Your task to perform on an android device: Open Youtube and go to the subscriptions tab Image 0: 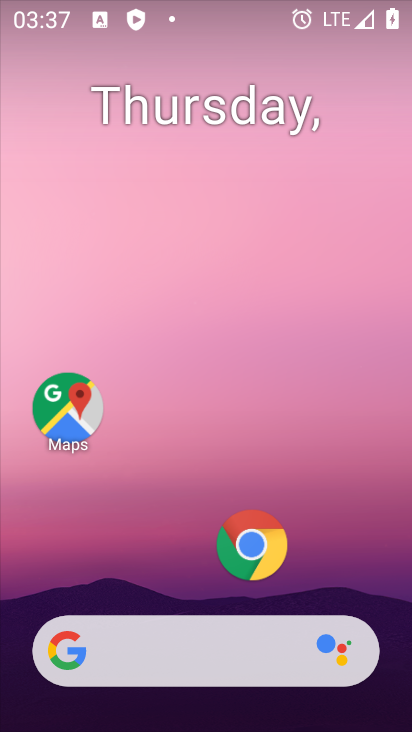
Step 0: drag from (205, 670) to (260, 10)
Your task to perform on an android device: Open Youtube and go to the subscriptions tab Image 1: 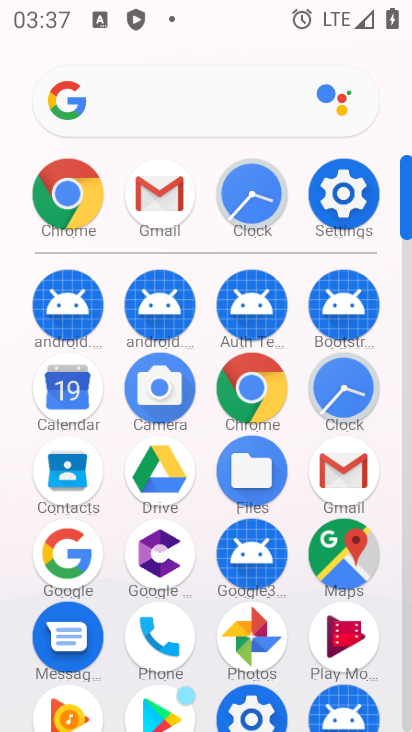
Step 1: drag from (290, 630) to (304, 196)
Your task to perform on an android device: Open Youtube and go to the subscriptions tab Image 2: 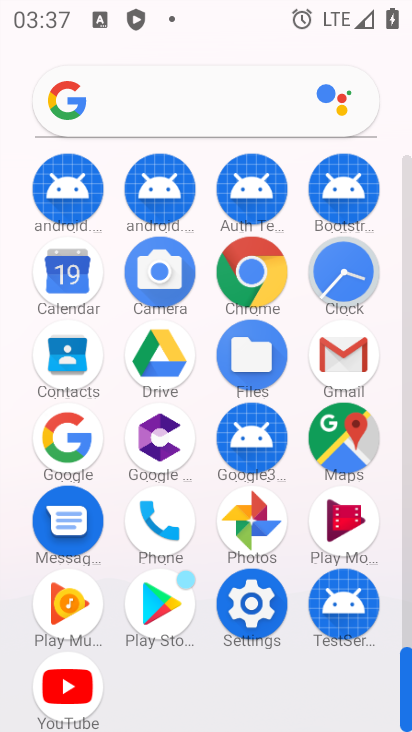
Step 2: click (67, 685)
Your task to perform on an android device: Open Youtube and go to the subscriptions tab Image 3: 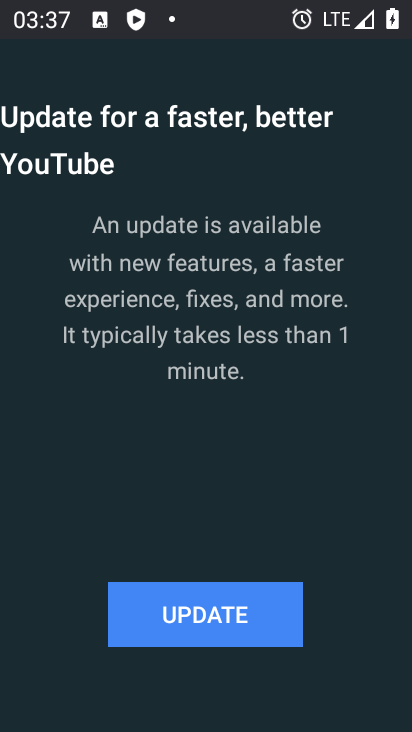
Step 3: click (191, 617)
Your task to perform on an android device: Open Youtube and go to the subscriptions tab Image 4: 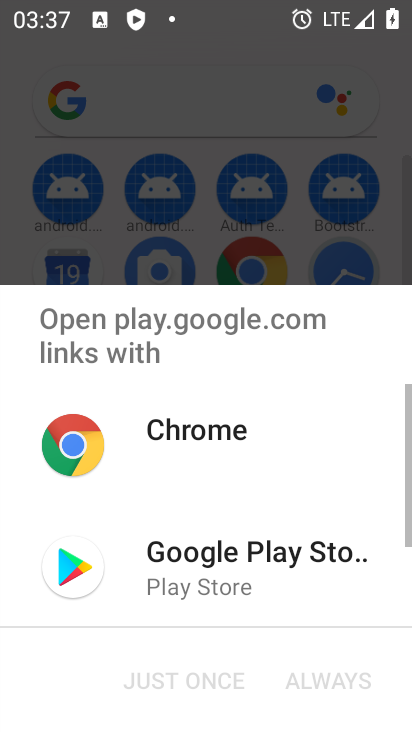
Step 4: click (215, 581)
Your task to perform on an android device: Open Youtube and go to the subscriptions tab Image 5: 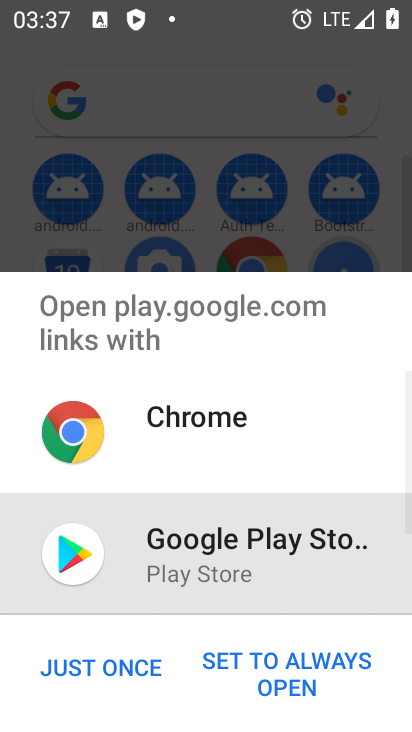
Step 5: click (144, 659)
Your task to perform on an android device: Open Youtube and go to the subscriptions tab Image 6: 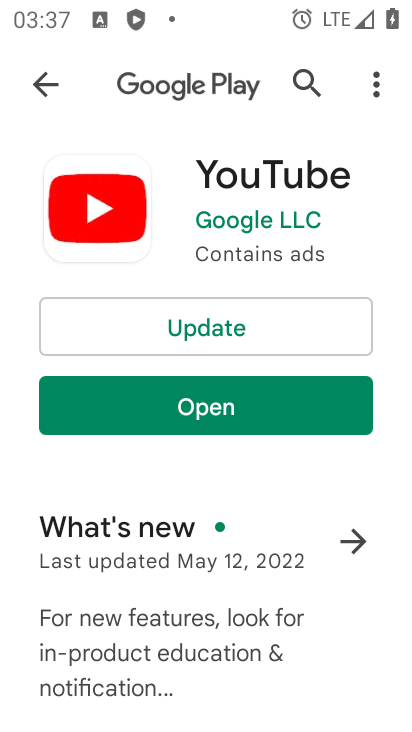
Step 6: click (166, 337)
Your task to perform on an android device: Open Youtube and go to the subscriptions tab Image 7: 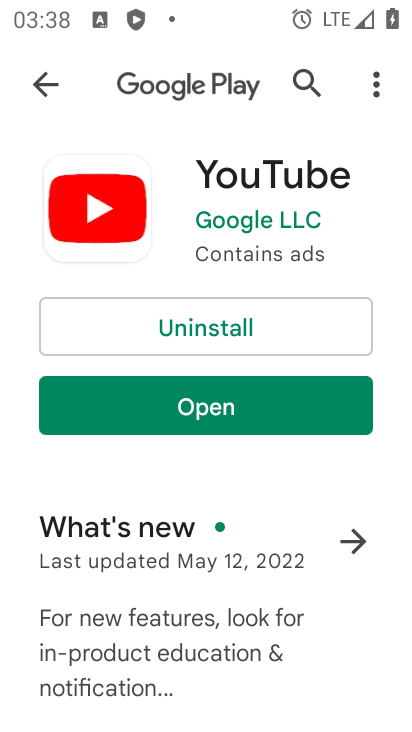
Step 7: click (223, 400)
Your task to perform on an android device: Open Youtube and go to the subscriptions tab Image 8: 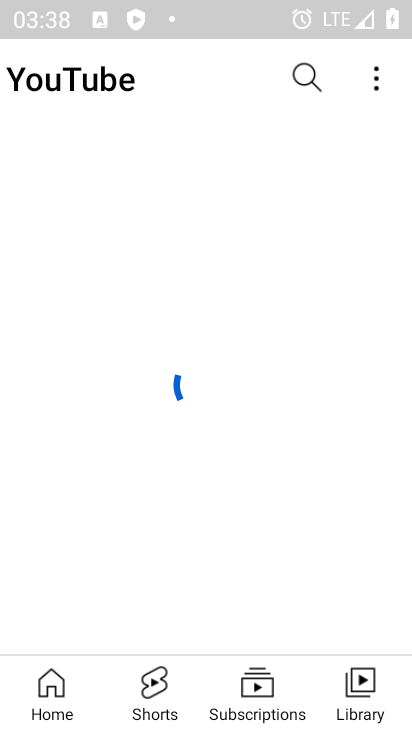
Step 8: click (254, 692)
Your task to perform on an android device: Open Youtube and go to the subscriptions tab Image 9: 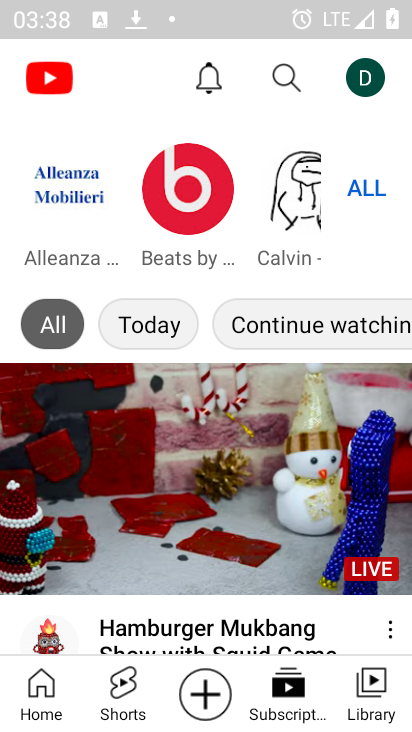
Step 9: task complete